Your task to perform on an android device: turn on sleep mode Image 0: 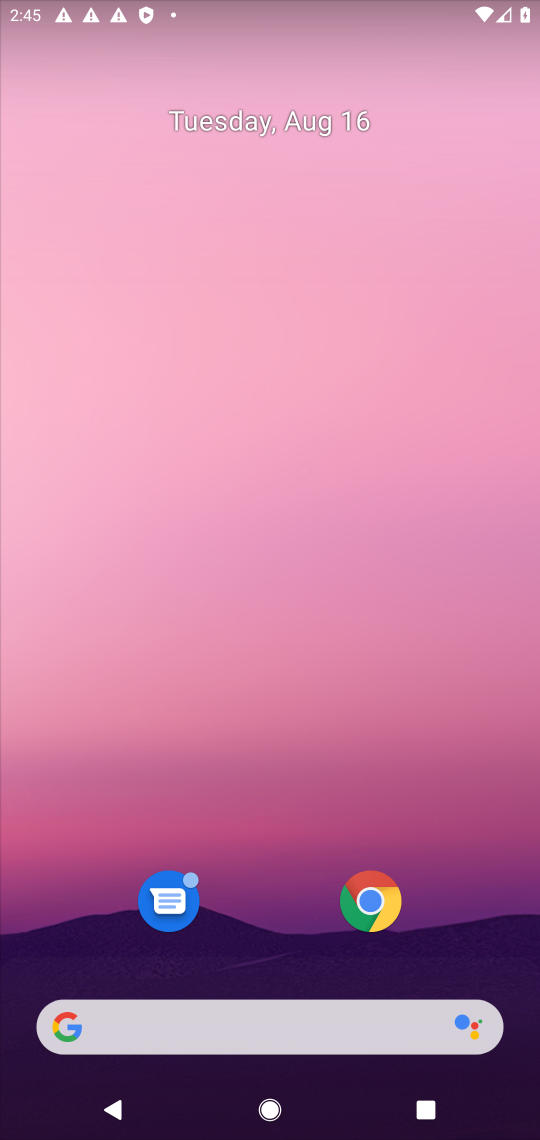
Step 0: drag from (223, 700) to (252, 207)
Your task to perform on an android device: turn on sleep mode Image 1: 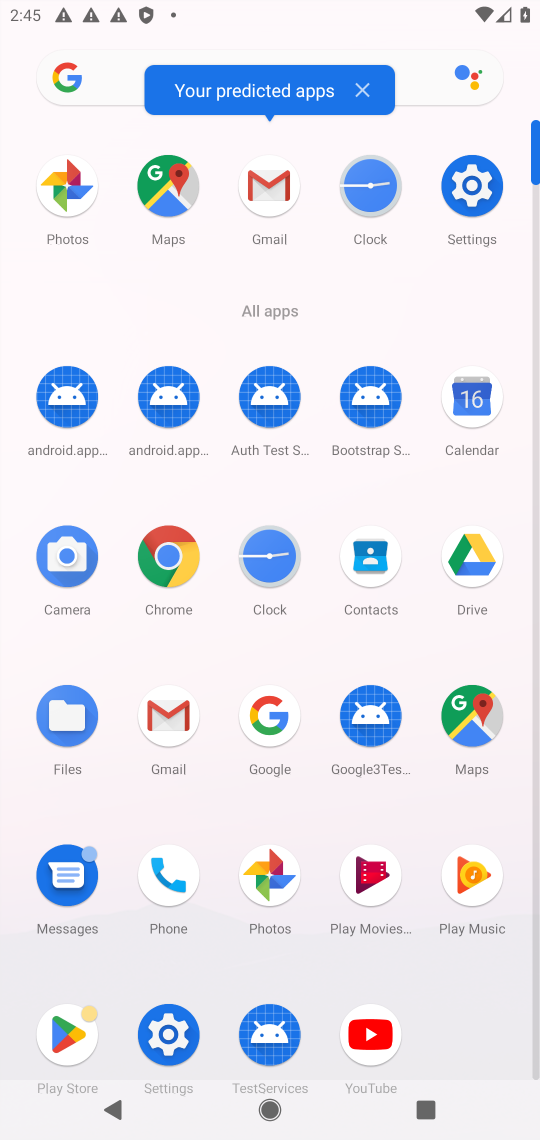
Step 1: click (169, 1025)
Your task to perform on an android device: turn on sleep mode Image 2: 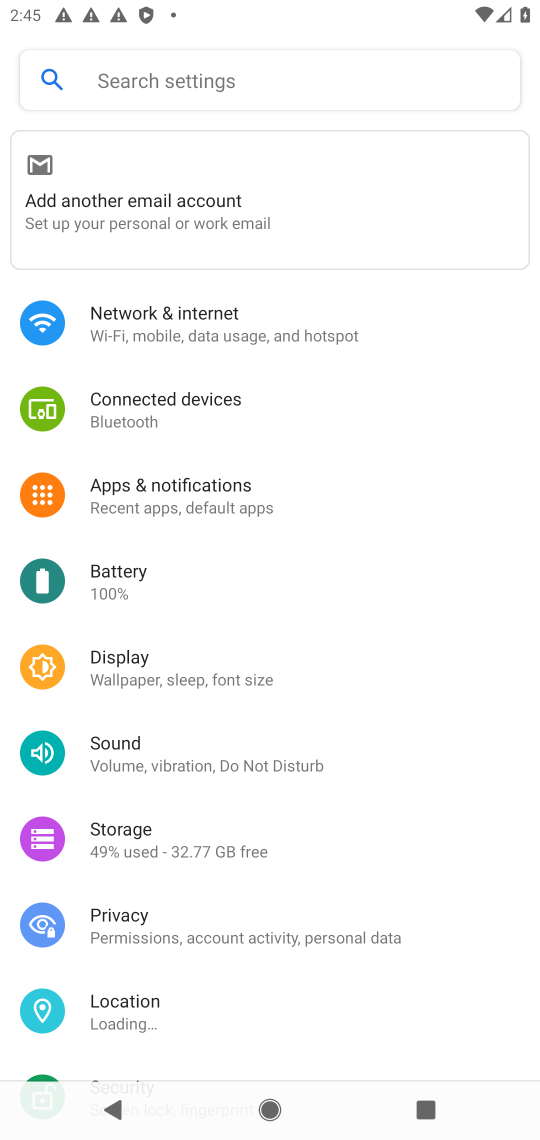
Step 2: click (274, 78)
Your task to perform on an android device: turn on sleep mode Image 3: 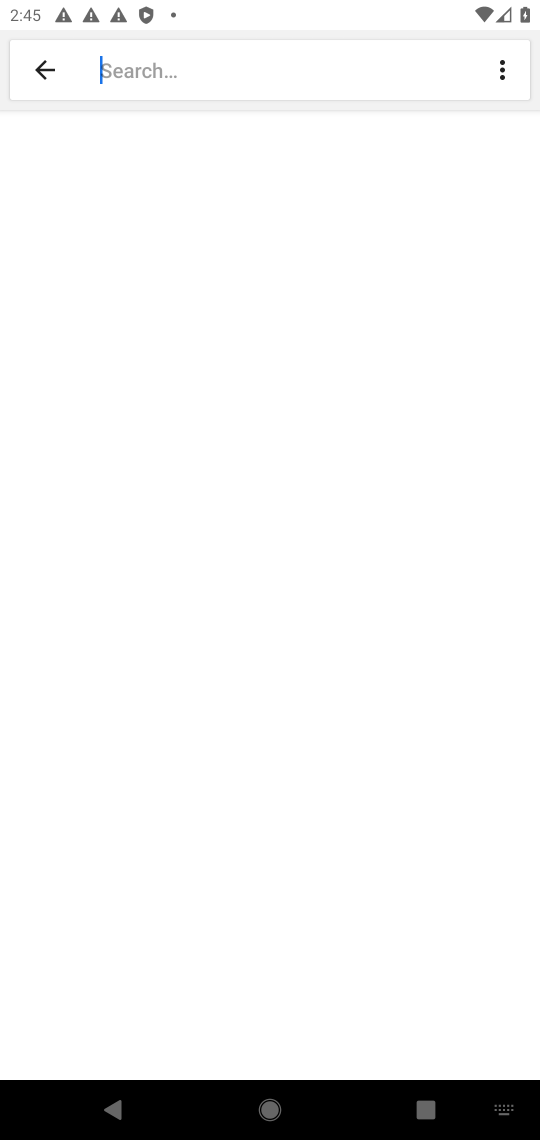
Step 3: type "sleep mode"
Your task to perform on an android device: turn on sleep mode Image 4: 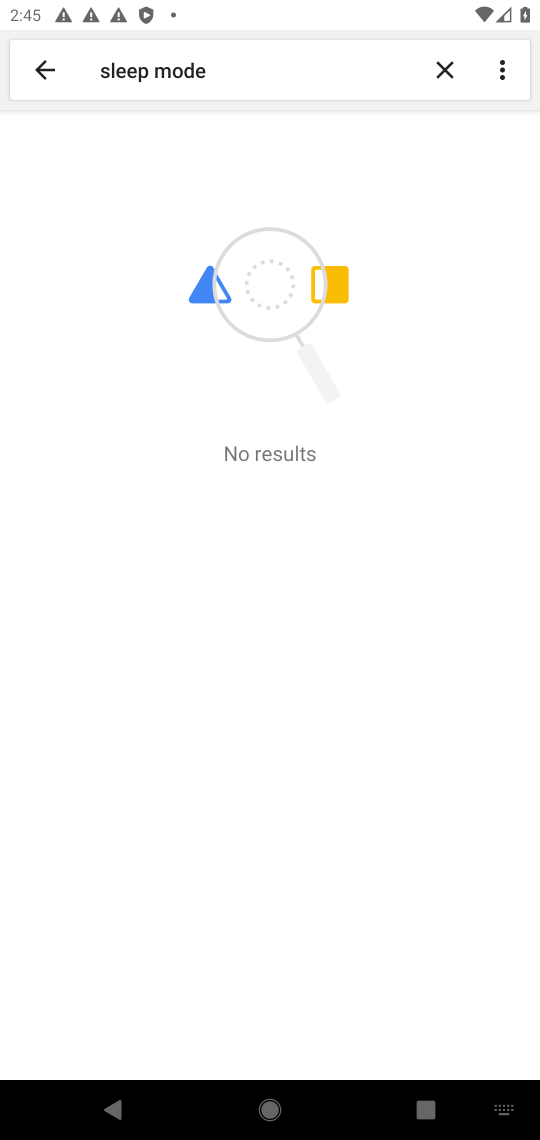
Step 4: task complete